Your task to perform on an android device: Do I have any events tomorrow? Image 0: 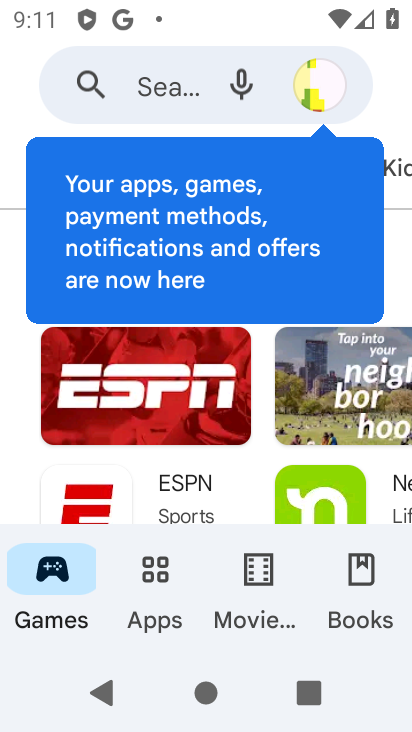
Step 0: press back button
Your task to perform on an android device: Do I have any events tomorrow? Image 1: 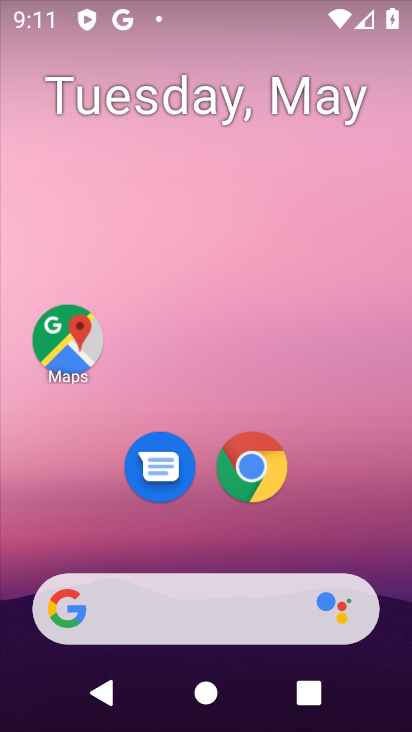
Step 1: drag from (344, 535) to (196, 29)
Your task to perform on an android device: Do I have any events tomorrow? Image 2: 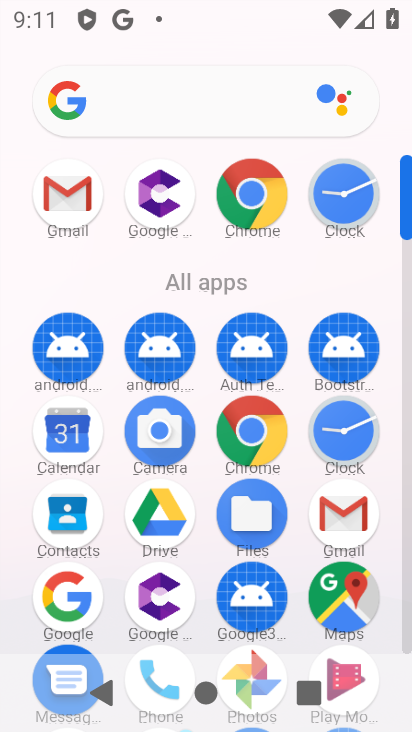
Step 2: drag from (9, 598) to (16, 301)
Your task to perform on an android device: Do I have any events tomorrow? Image 3: 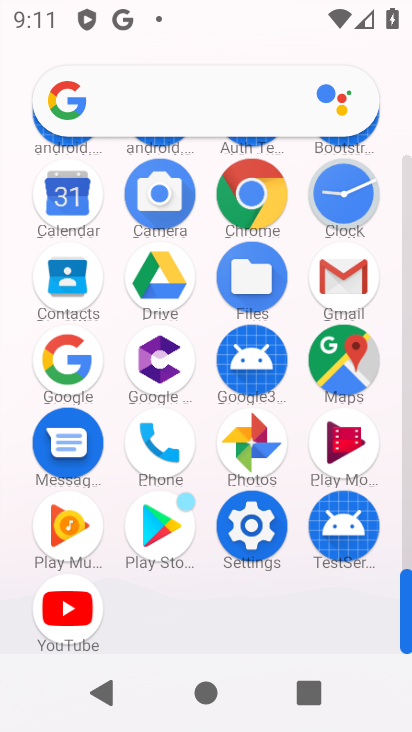
Step 3: drag from (11, 508) to (6, 302)
Your task to perform on an android device: Do I have any events tomorrow? Image 4: 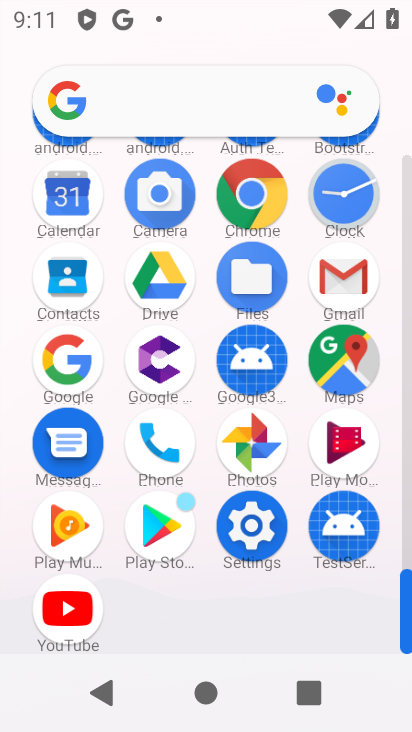
Step 4: click (68, 189)
Your task to perform on an android device: Do I have any events tomorrow? Image 5: 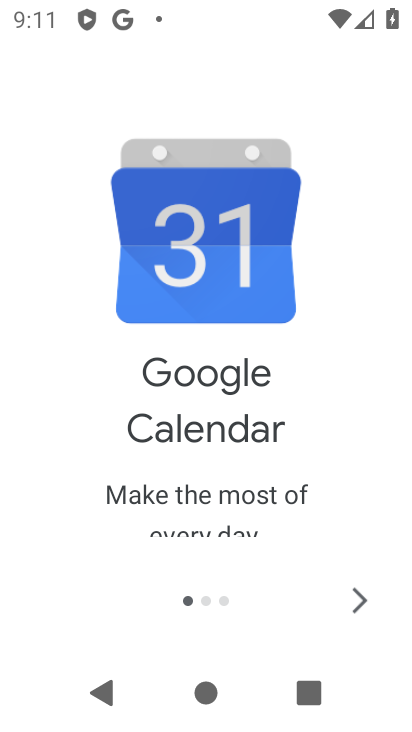
Step 5: click (359, 592)
Your task to perform on an android device: Do I have any events tomorrow? Image 6: 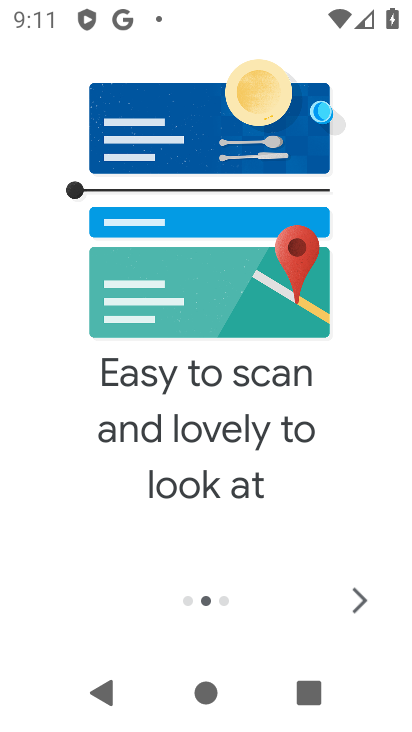
Step 6: click (359, 592)
Your task to perform on an android device: Do I have any events tomorrow? Image 7: 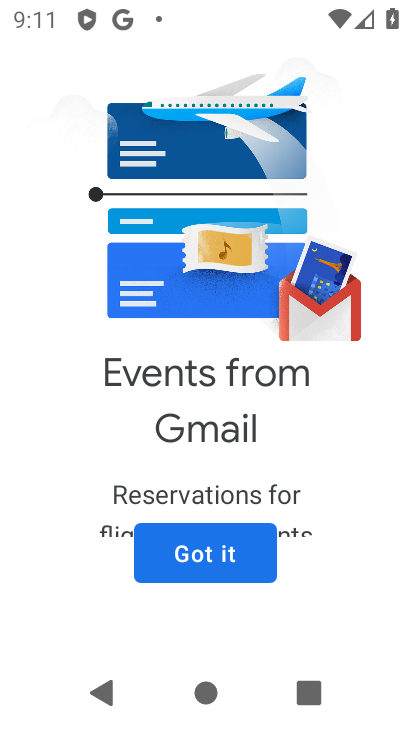
Step 7: click (242, 561)
Your task to perform on an android device: Do I have any events tomorrow? Image 8: 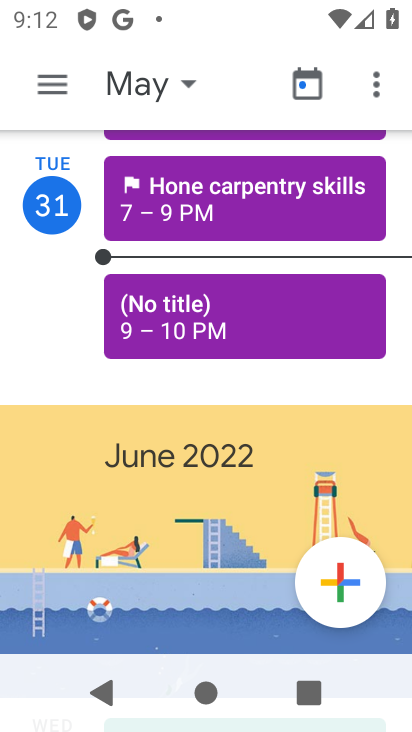
Step 8: click (54, 87)
Your task to perform on an android device: Do I have any events tomorrow? Image 9: 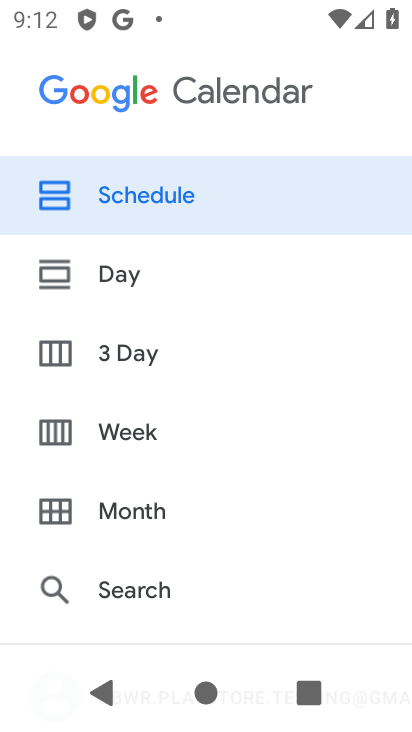
Step 9: click (133, 269)
Your task to perform on an android device: Do I have any events tomorrow? Image 10: 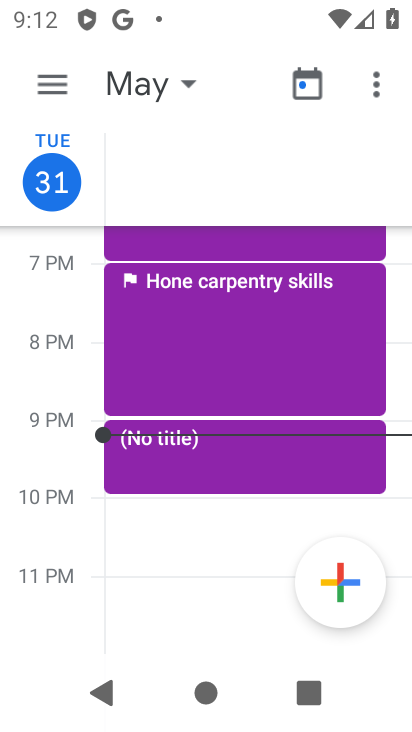
Step 10: task complete